Your task to perform on an android device: snooze an email in the gmail app Image 0: 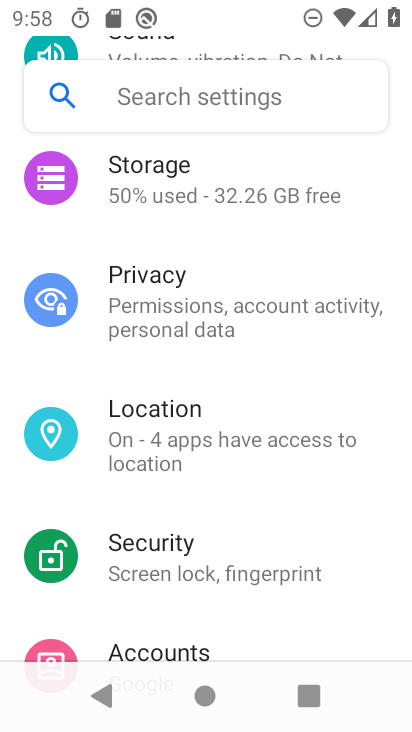
Step 0: press home button
Your task to perform on an android device: snooze an email in the gmail app Image 1: 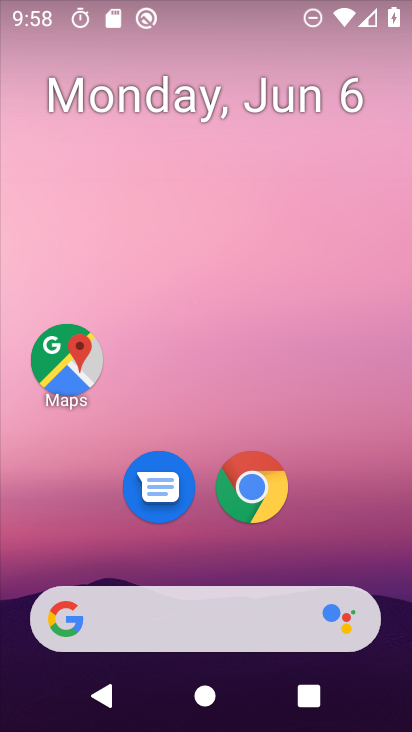
Step 1: drag from (389, 614) to (277, 56)
Your task to perform on an android device: snooze an email in the gmail app Image 2: 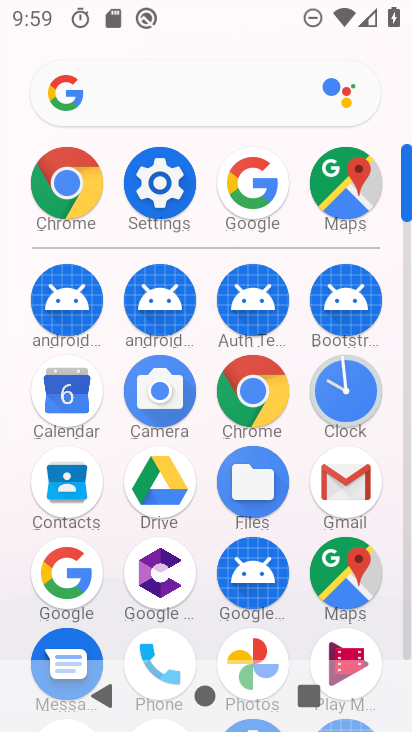
Step 2: click (340, 502)
Your task to perform on an android device: snooze an email in the gmail app Image 3: 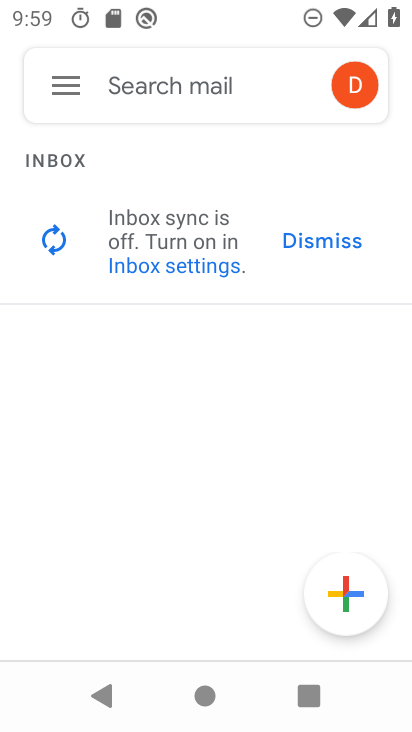
Step 3: click (49, 82)
Your task to perform on an android device: snooze an email in the gmail app Image 4: 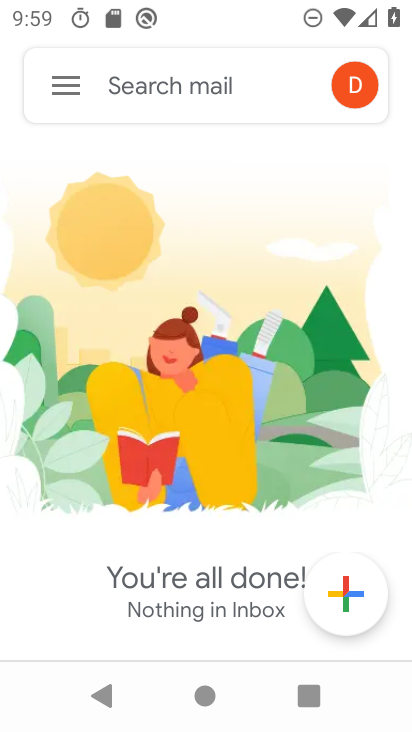
Step 4: click (57, 79)
Your task to perform on an android device: snooze an email in the gmail app Image 5: 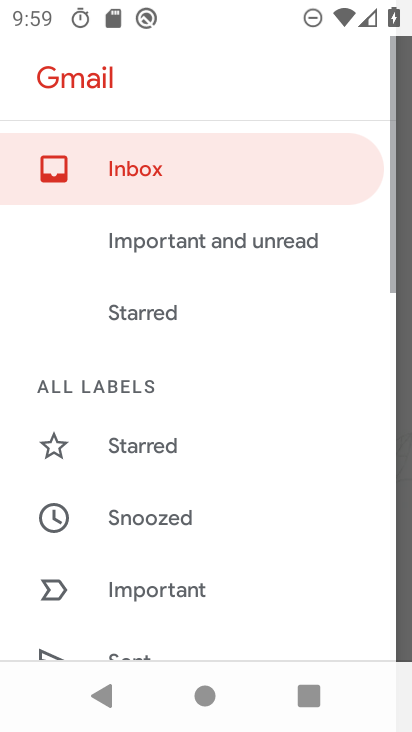
Step 5: click (188, 170)
Your task to perform on an android device: snooze an email in the gmail app Image 6: 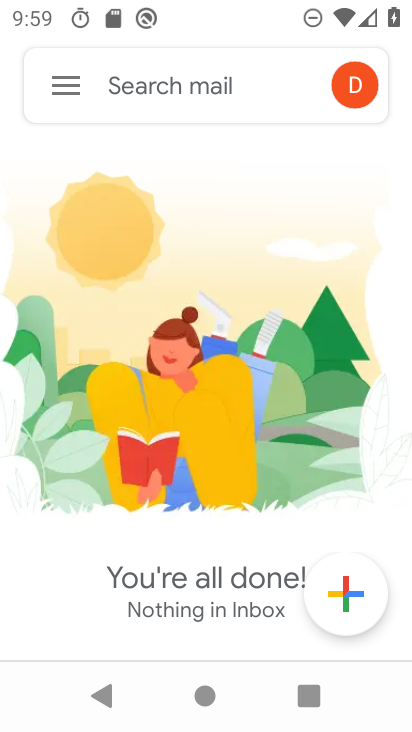
Step 6: task complete